Your task to perform on an android device: change keyboard looks Image 0: 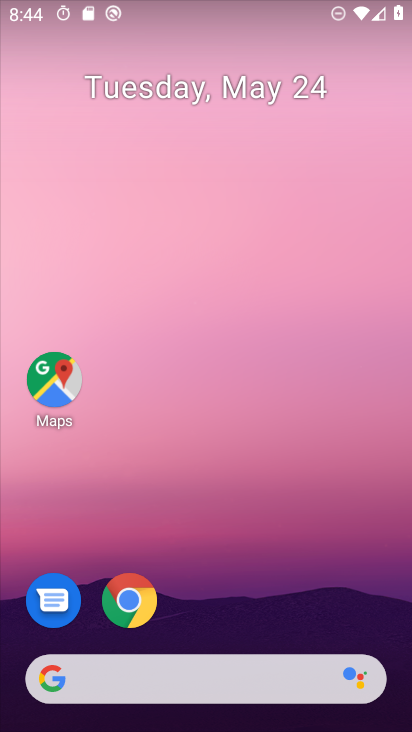
Step 0: drag from (228, 602) to (236, 60)
Your task to perform on an android device: change keyboard looks Image 1: 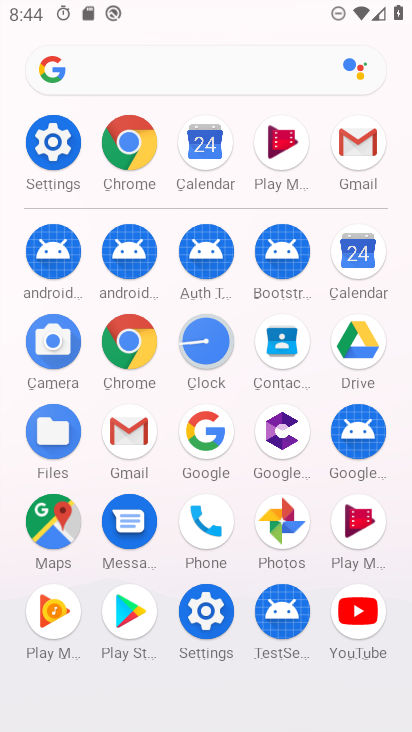
Step 1: click (48, 134)
Your task to perform on an android device: change keyboard looks Image 2: 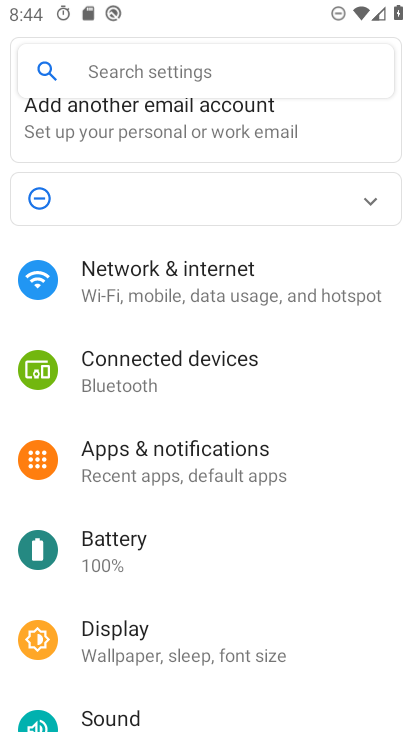
Step 2: drag from (171, 676) to (227, 75)
Your task to perform on an android device: change keyboard looks Image 3: 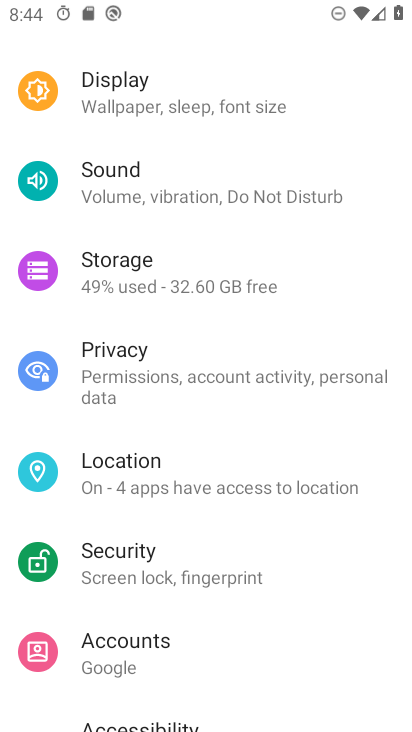
Step 3: drag from (224, 645) to (254, 129)
Your task to perform on an android device: change keyboard looks Image 4: 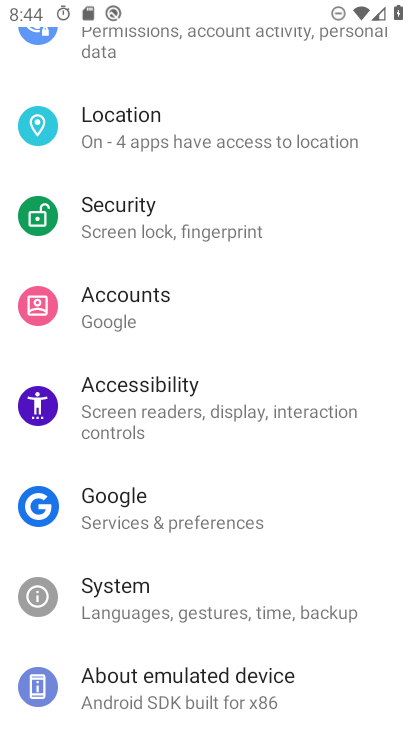
Step 4: click (172, 682)
Your task to perform on an android device: change keyboard looks Image 5: 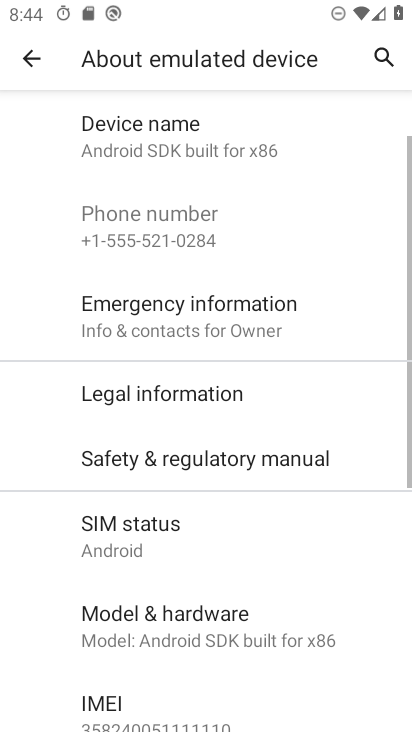
Step 5: drag from (173, 670) to (213, 659)
Your task to perform on an android device: change keyboard looks Image 6: 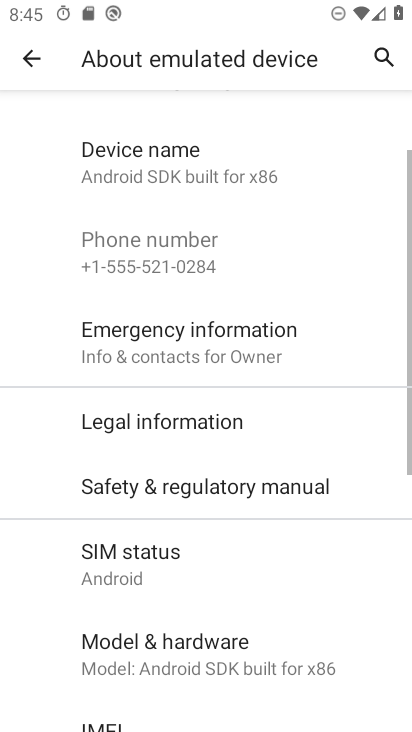
Step 6: click (33, 44)
Your task to perform on an android device: change keyboard looks Image 7: 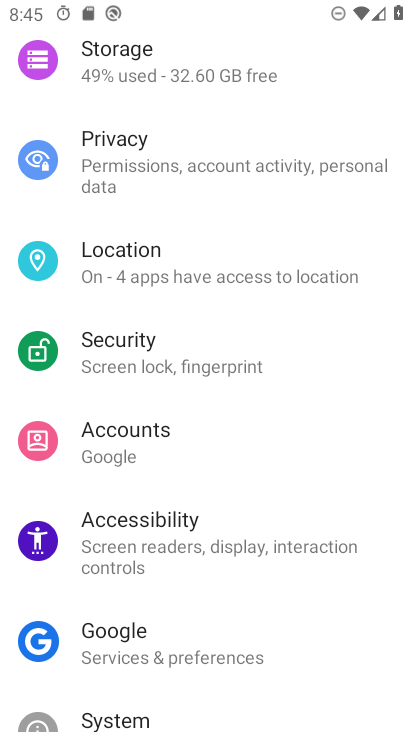
Step 7: drag from (231, 689) to (257, 148)
Your task to perform on an android device: change keyboard looks Image 8: 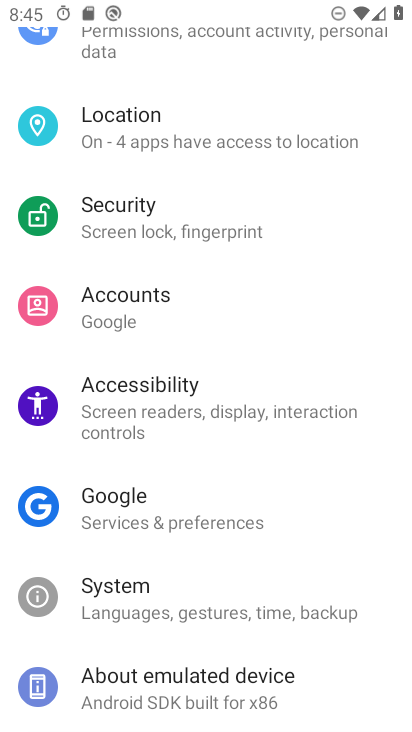
Step 8: click (121, 584)
Your task to perform on an android device: change keyboard looks Image 9: 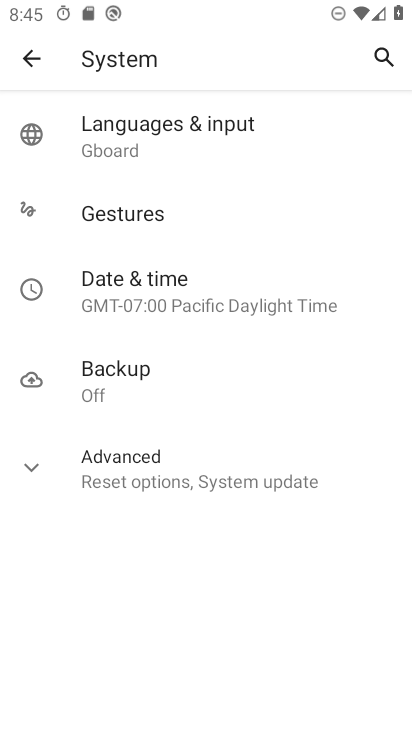
Step 9: click (152, 141)
Your task to perform on an android device: change keyboard looks Image 10: 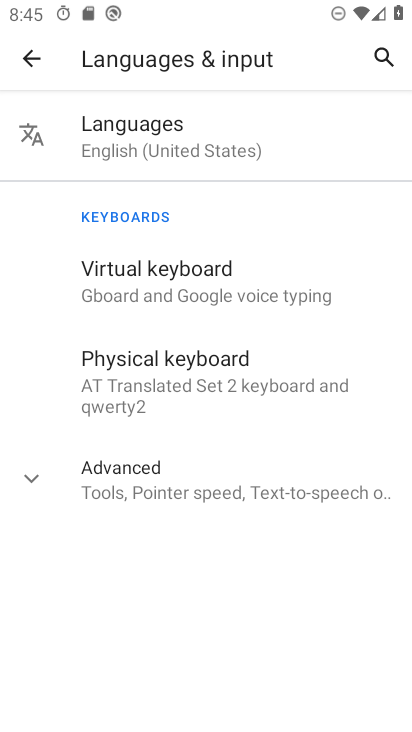
Step 10: click (165, 281)
Your task to perform on an android device: change keyboard looks Image 11: 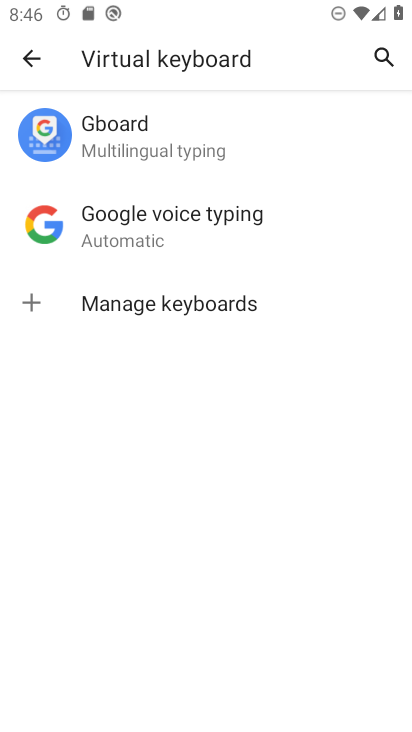
Step 11: click (150, 121)
Your task to perform on an android device: change keyboard looks Image 12: 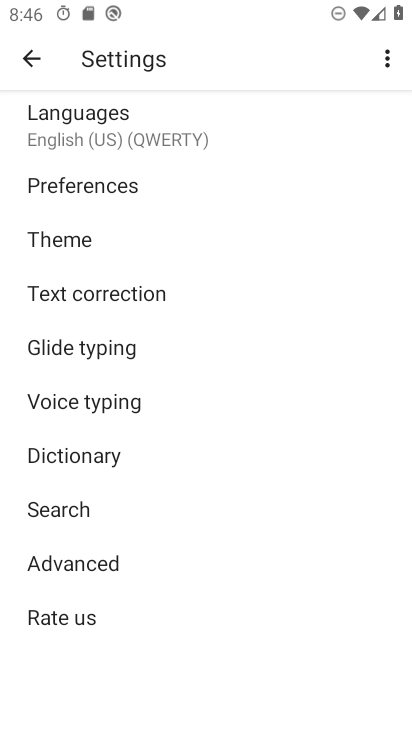
Step 12: click (47, 233)
Your task to perform on an android device: change keyboard looks Image 13: 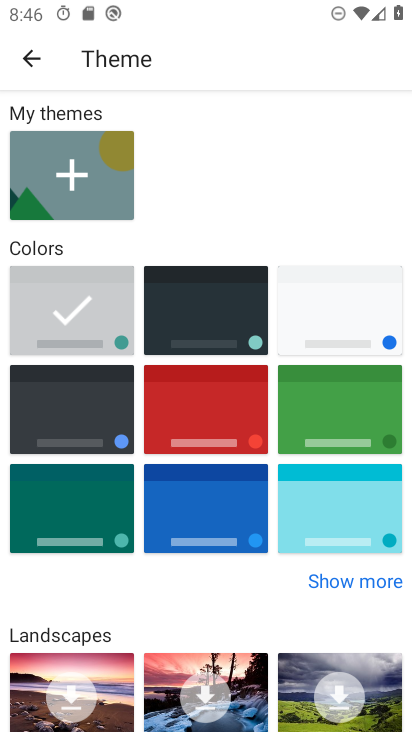
Step 13: drag from (204, 591) to (238, 149)
Your task to perform on an android device: change keyboard looks Image 14: 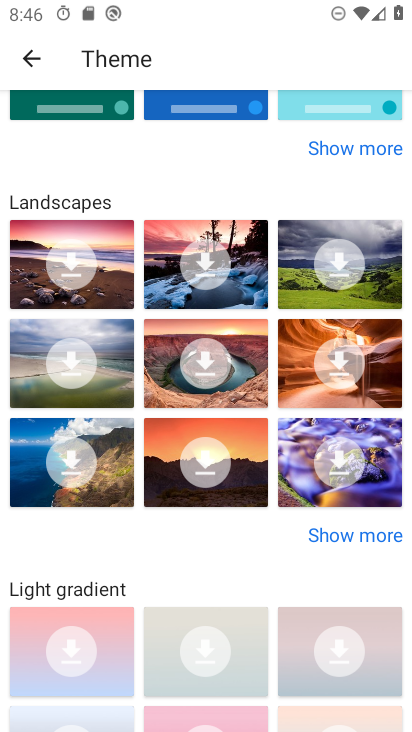
Step 14: click (315, 459)
Your task to perform on an android device: change keyboard looks Image 15: 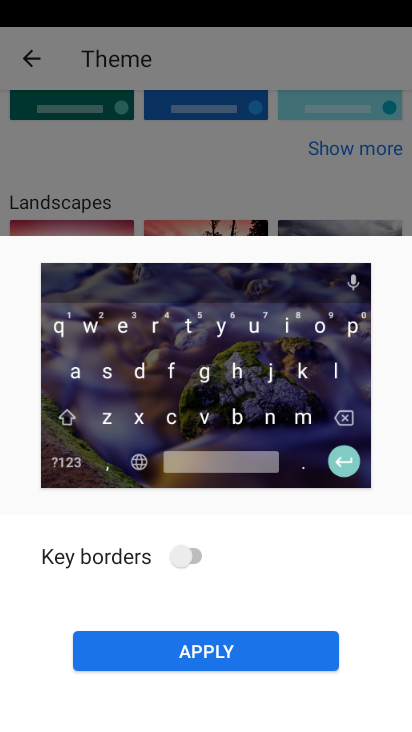
Step 15: click (239, 642)
Your task to perform on an android device: change keyboard looks Image 16: 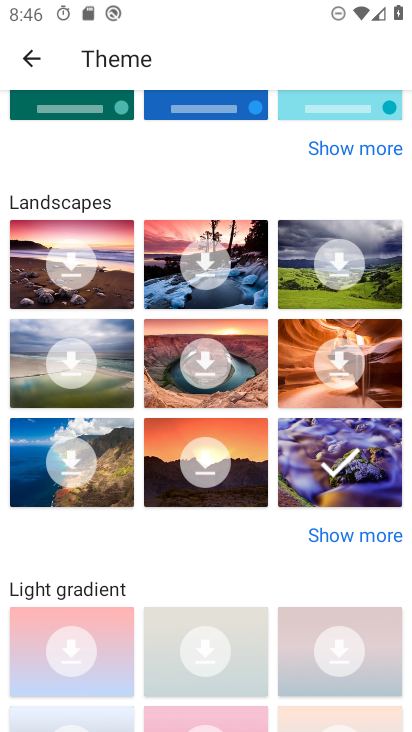
Step 16: task complete